Your task to perform on an android device: Add dell alienware to the cart on bestbuy.com Image 0: 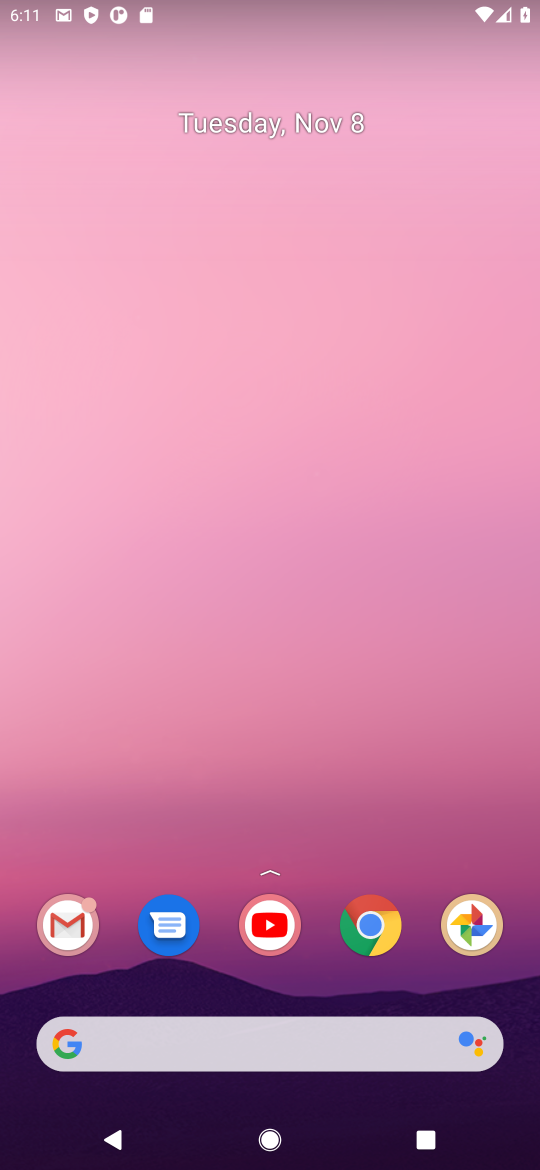
Step 0: click (365, 944)
Your task to perform on an android device: Add dell alienware to the cart on bestbuy.com Image 1: 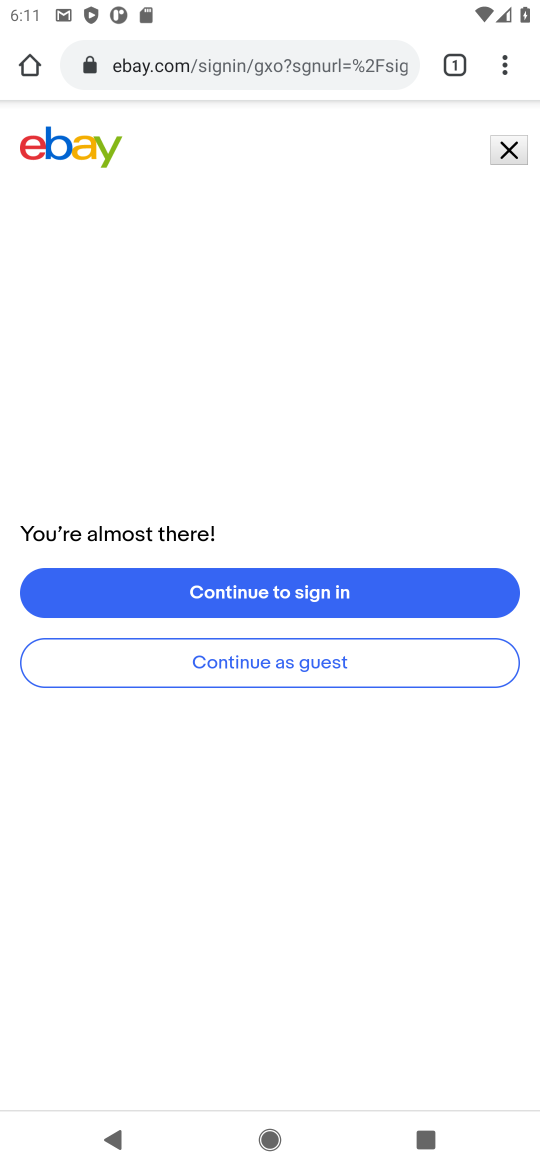
Step 1: click (271, 65)
Your task to perform on an android device: Add dell alienware to the cart on bestbuy.com Image 2: 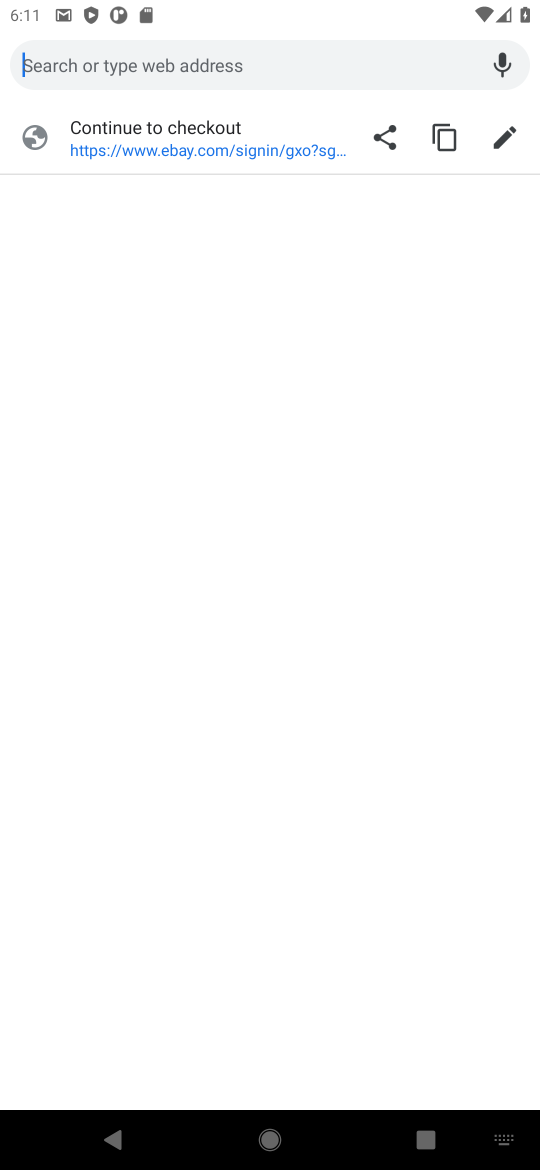
Step 2: type "bestbuy.com"
Your task to perform on an android device: Add dell alienware to the cart on bestbuy.com Image 3: 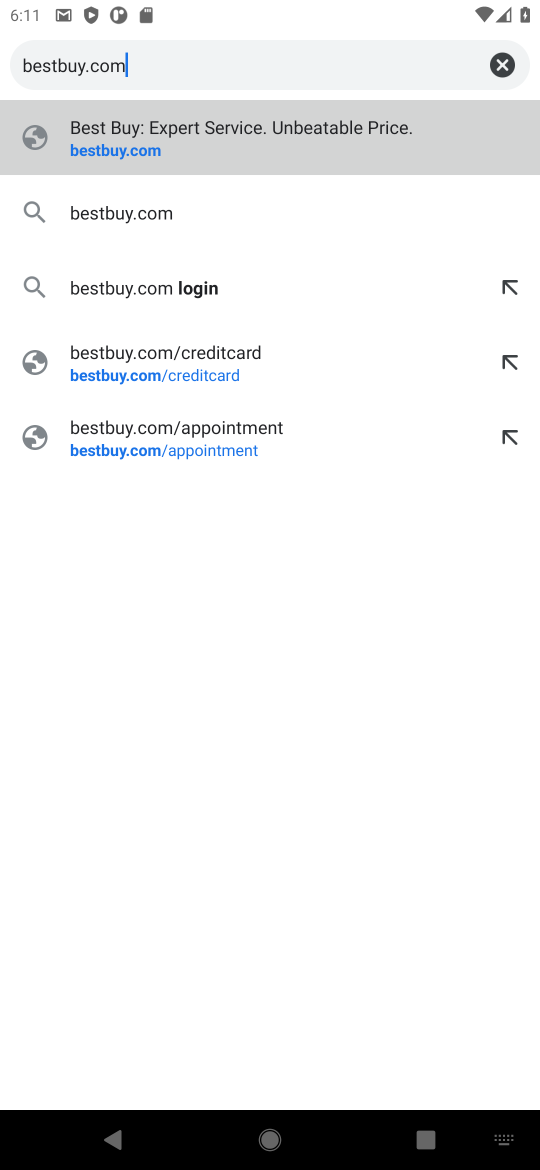
Step 3: click (187, 151)
Your task to perform on an android device: Add dell alienware to the cart on bestbuy.com Image 4: 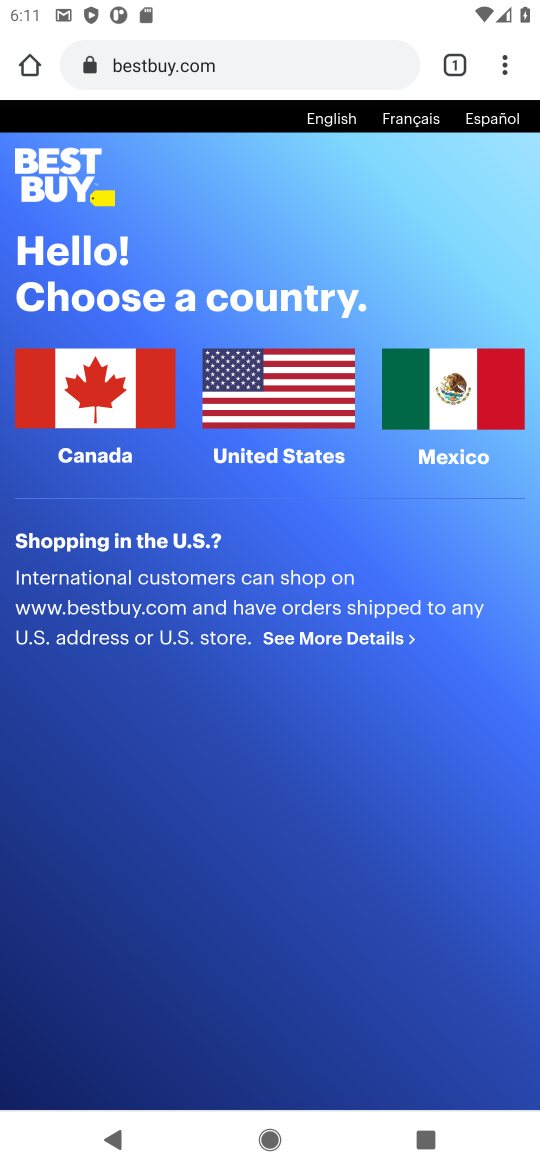
Step 4: click (237, 415)
Your task to perform on an android device: Add dell alienware to the cart on bestbuy.com Image 5: 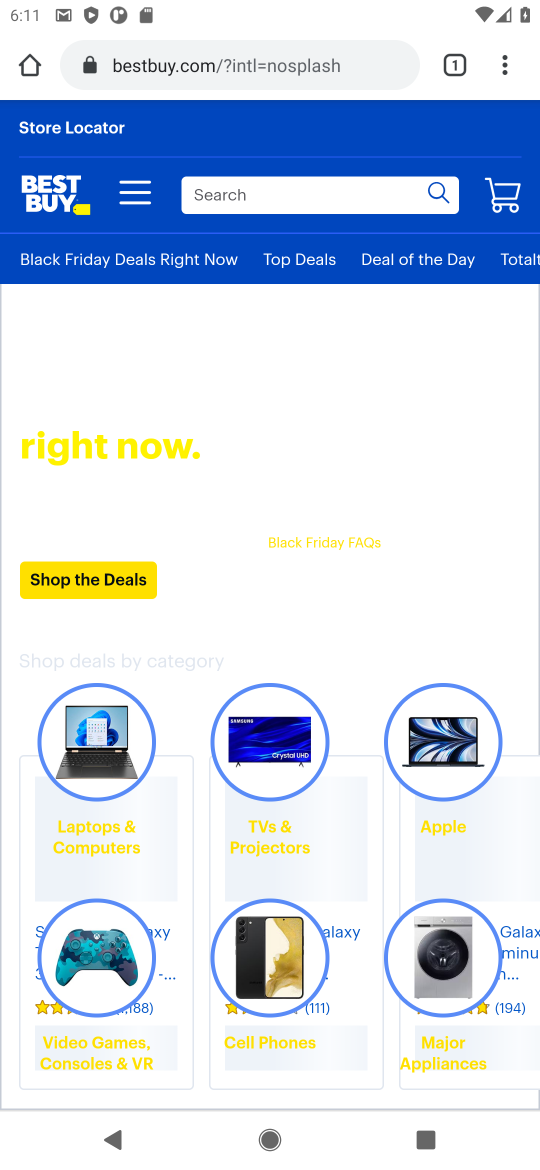
Step 5: click (293, 195)
Your task to perform on an android device: Add dell alienware to the cart on bestbuy.com Image 6: 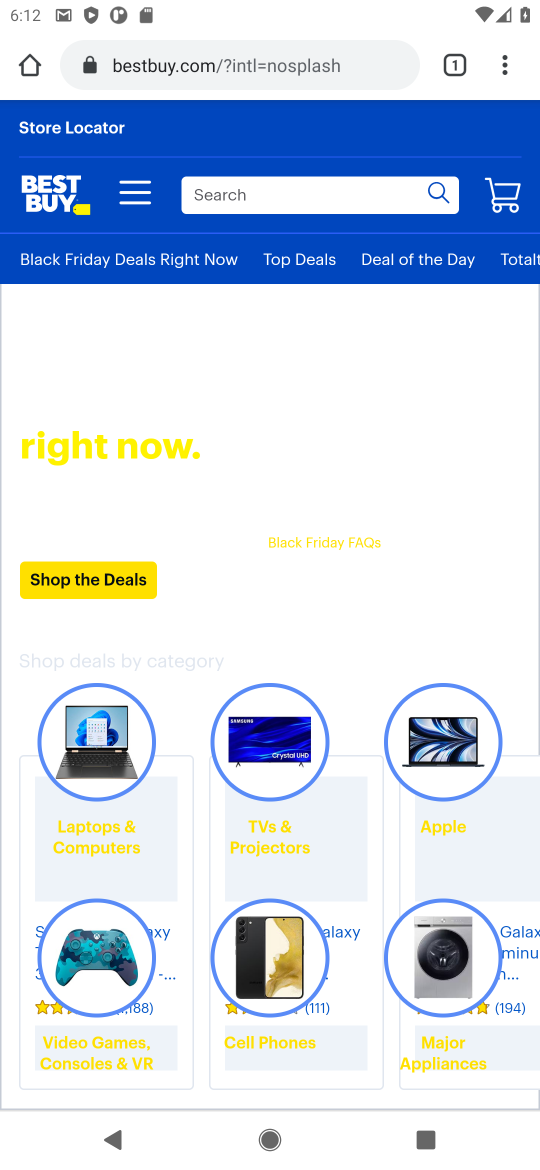
Step 6: click (293, 195)
Your task to perform on an android device: Add dell alienware to the cart on bestbuy.com Image 7: 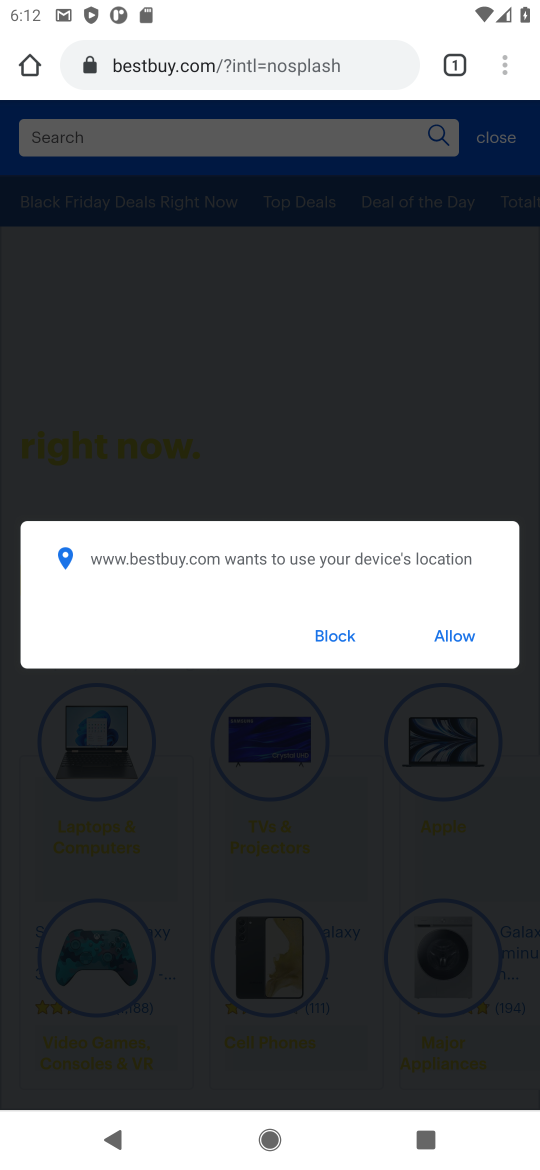
Step 7: click (440, 634)
Your task to perform on an android device: Add dell alienware to the cart on bestbuy.com Image 8: 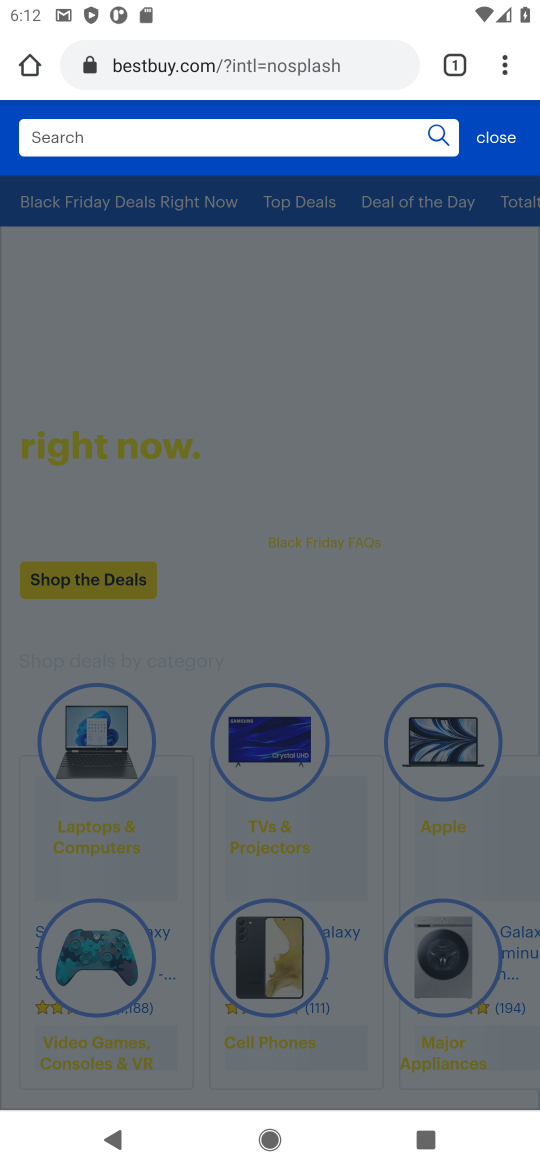
Step 8: click (245, 142)
Your task to perform on an android device: Add dell alienware to the cart on bestbuy.com Image 9: 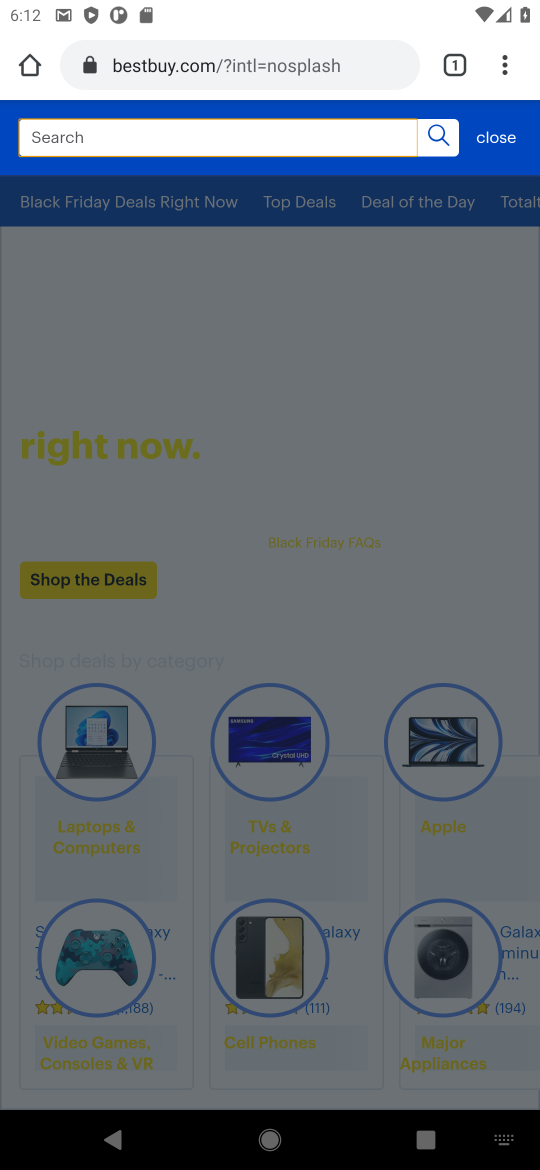
Step 9: type "dell alienware"
Your task to perform on an android device: Add dell alienware to the cart on bestbuy.com Image 10: 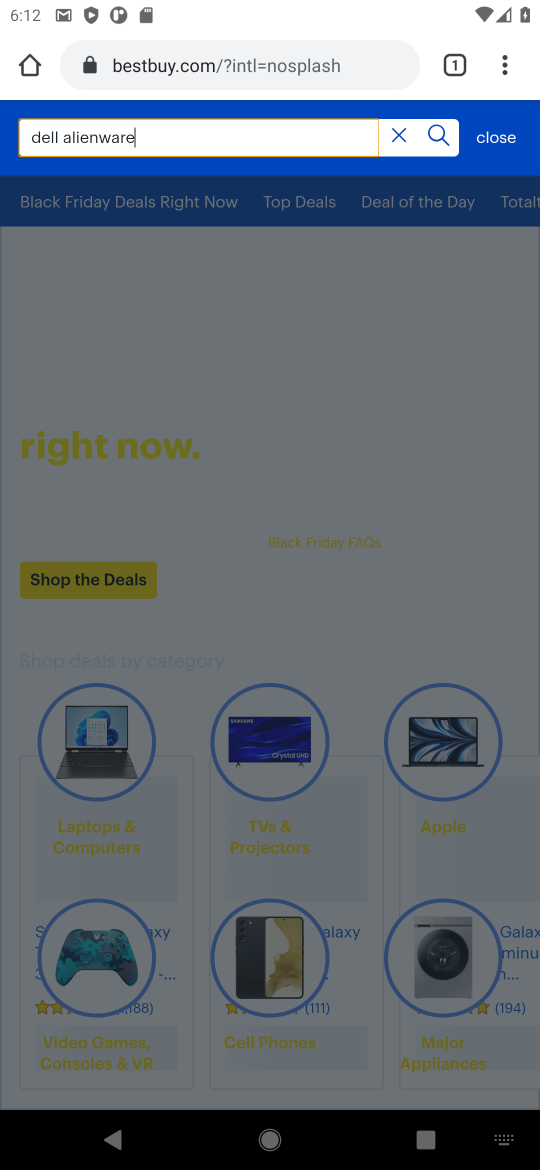
Step 10: press enter
Your task to perform on an android device: Add dell alienware to the cart on bestbuy.com Image 11: 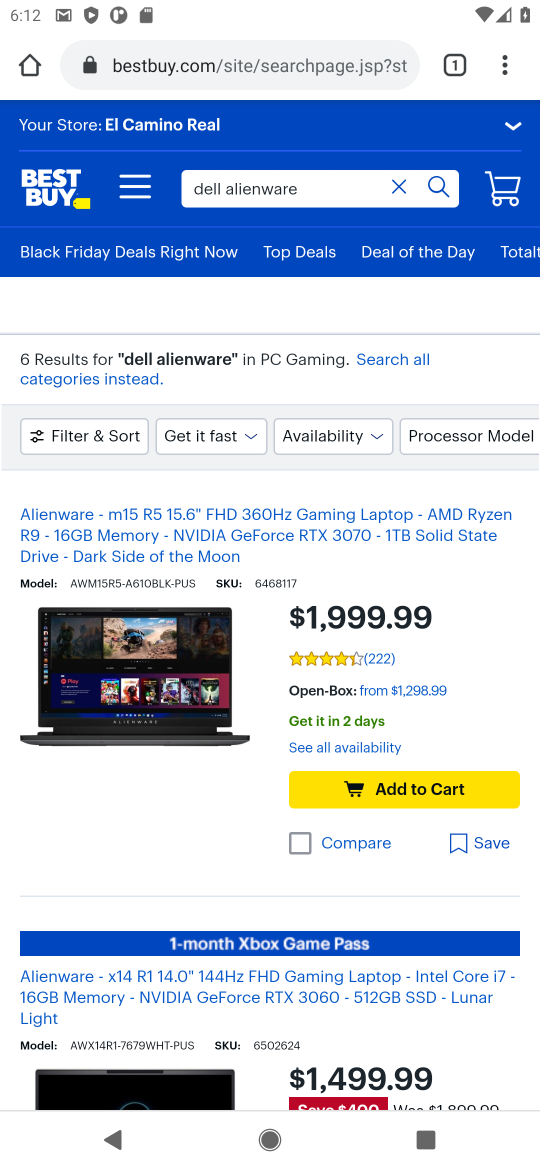
Step 11: click (254, 538)
Your task to perform on an android device: Add dell alienware to the cart on bestbuy.com Image 12: 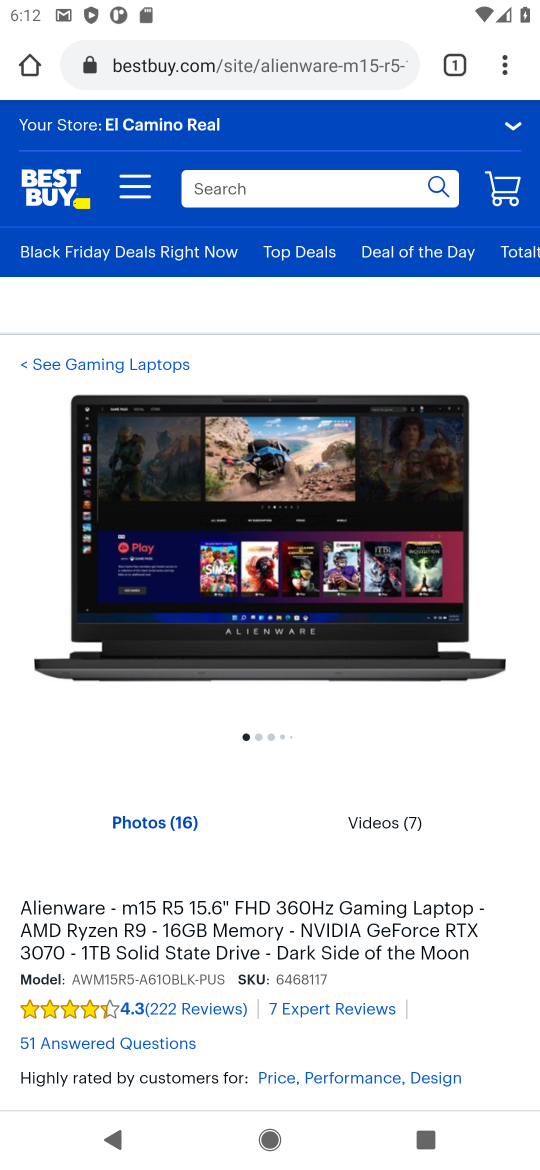
Step 12: drag from (395, 1002) to (378, 545)
Your task to perform on an android device: Add dell alienware to the cart on bestbuy.com Image 13: 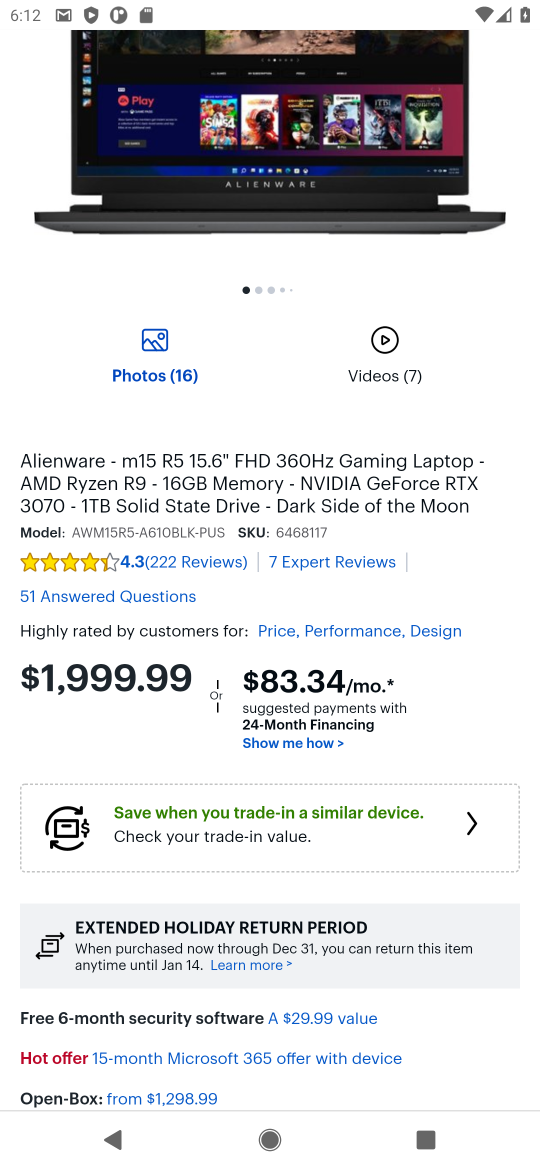
Step 13: press back button
Your task to perform on an android device: Add dell alienware to the cart on bestbuy.com Image 14: 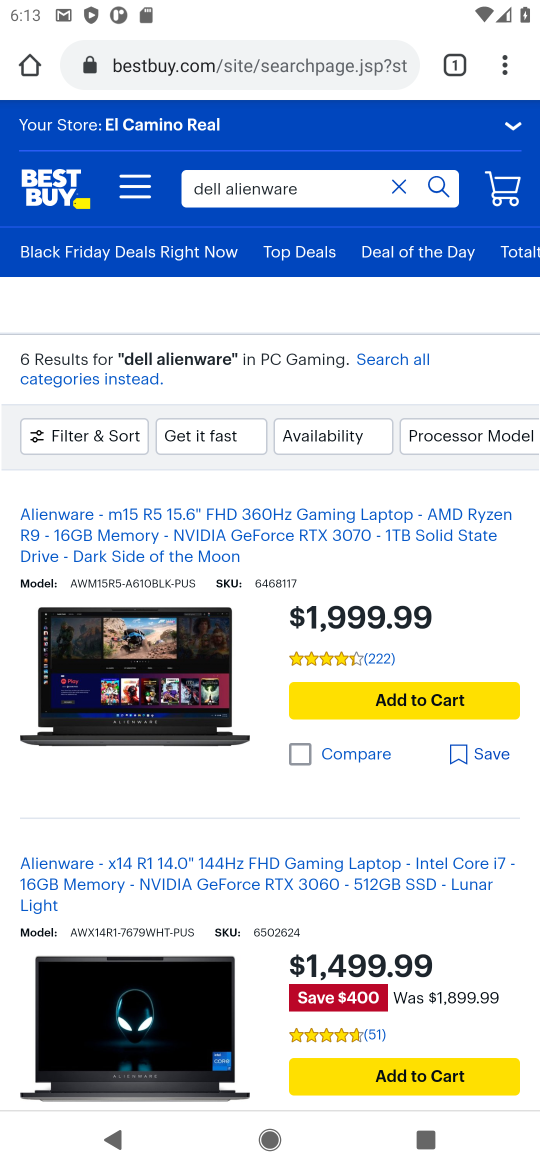
Step 14: drag from (274, 1001) to (232, 495)
Your task to perform on an android device: Add dell alienware to the cart on bestbuy.com Image 15: 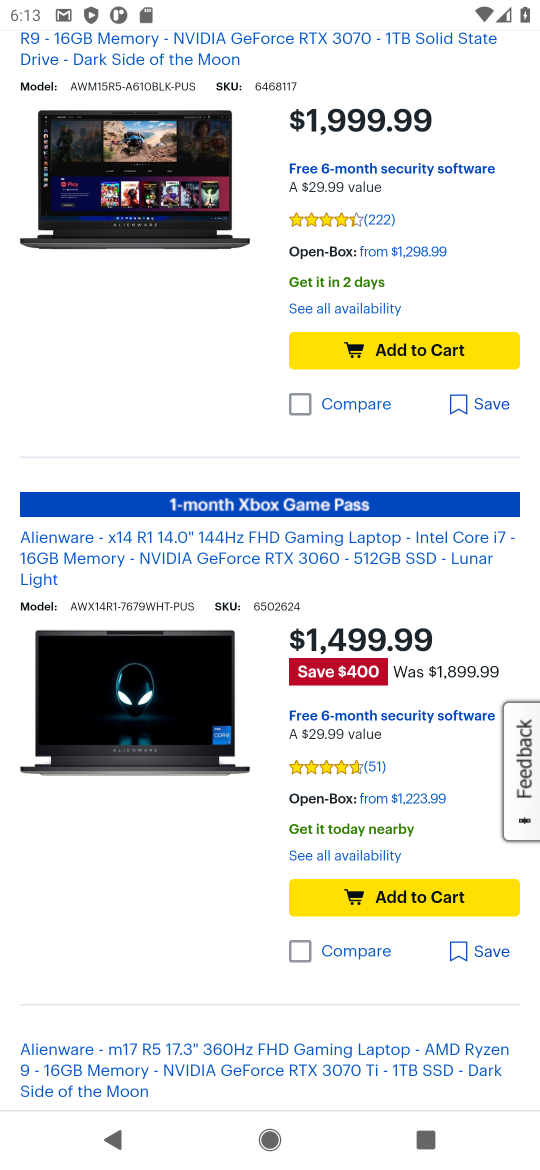
Step 15: drag from (220, 1012) to (243, 1075)
Your task to perform on an android device: Add dell alienware to the cart on bestbuy.com Image 16: 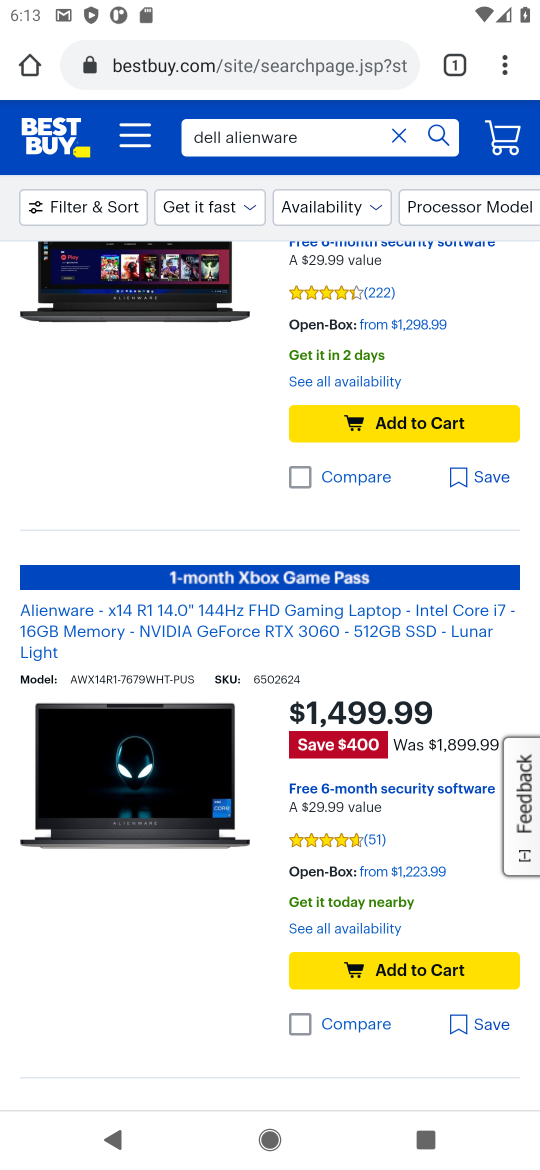
Step 16: drag from (221, 536) to (292, 1087)
Your task to perform on an android device: Add dell alienware to the cart on bestbuy.com Image 17: 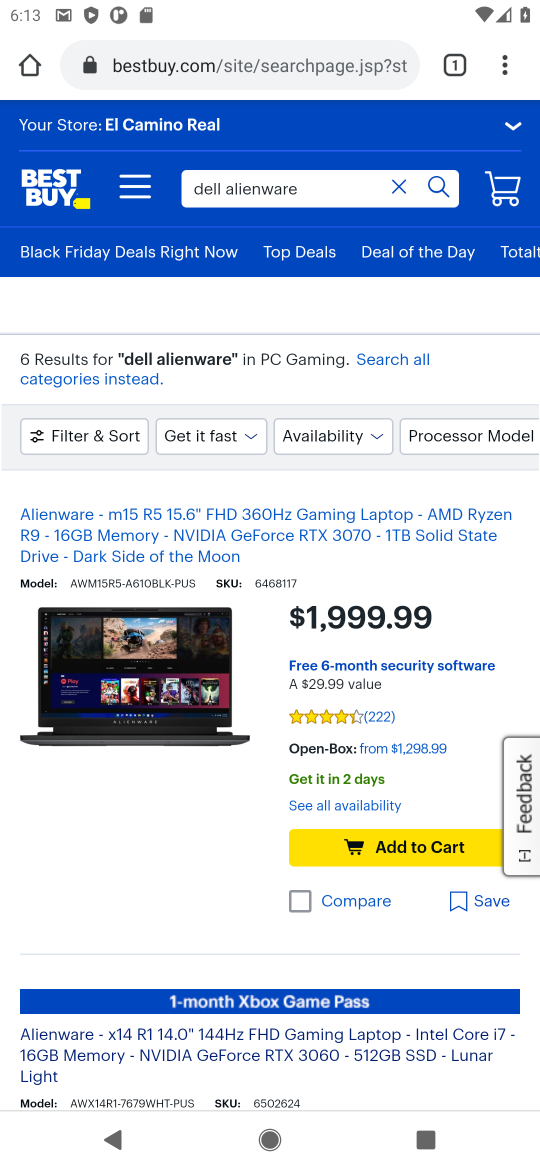
Step 17: click (54, 437)
Your task to perform on an android device: Add dell alienware to the cart on bestbuy.com Image 18: 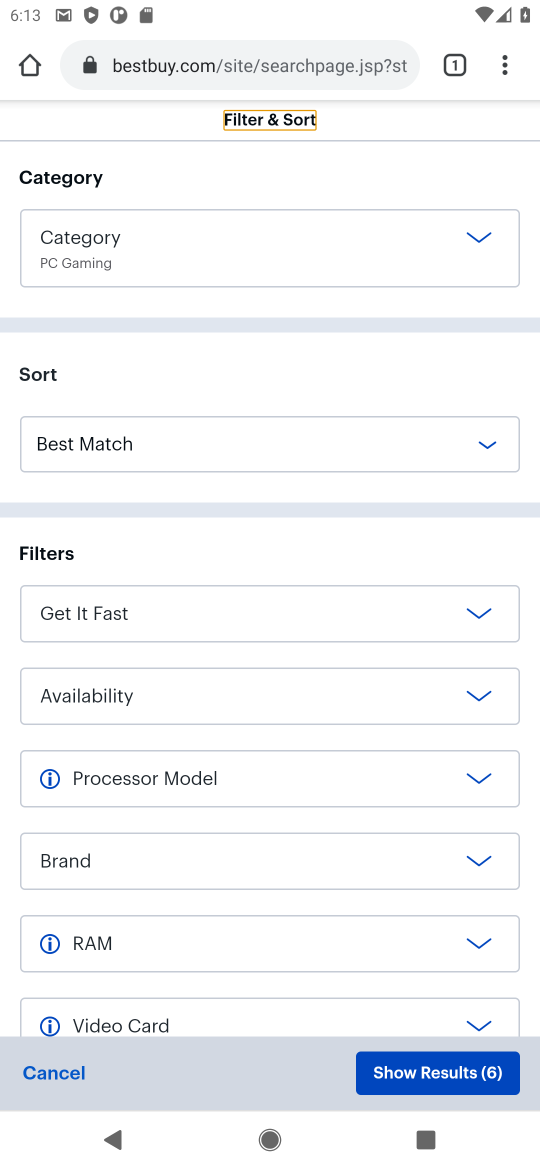
Step 18: click (478, 862)
Your task to perform on an android device: Add dell alienware to the cart on bestbuy.com Image 19: 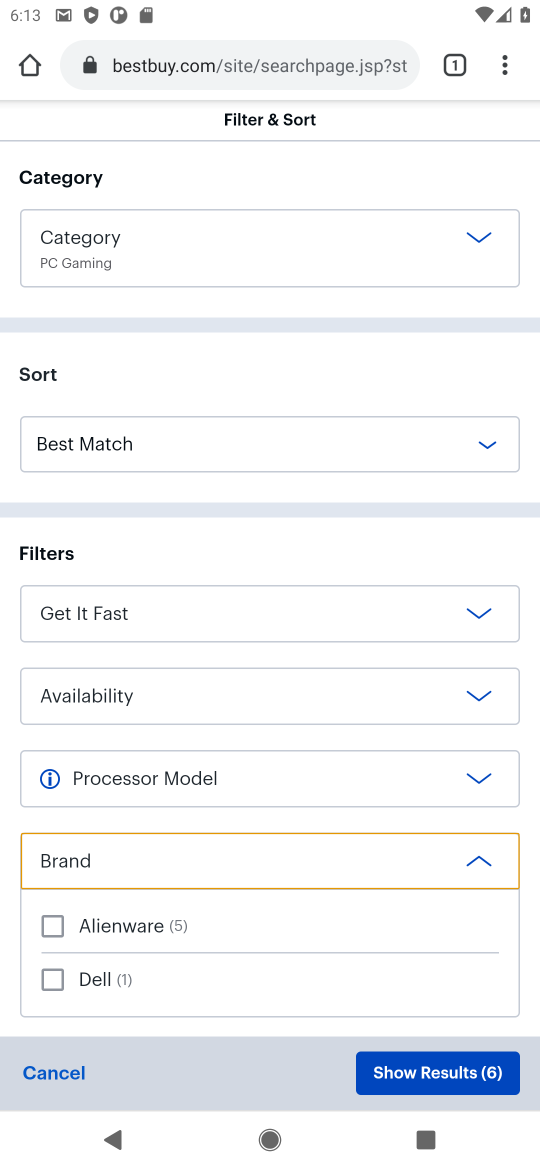
Step 19: click (50, 972)
Your task to perform on an android device: Add dell alienware to the cart on bestbuy.com Image 20: 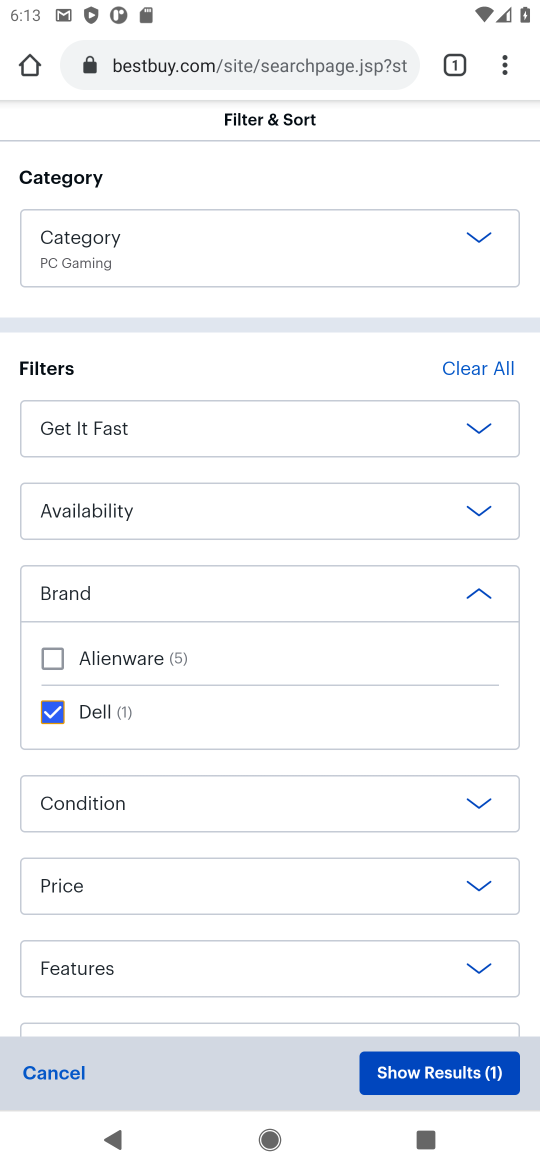
Step 20: click (454, 1071)
Your task to perform on an android device: Add dell alienware to the cart on bestbuy.com Image 21: 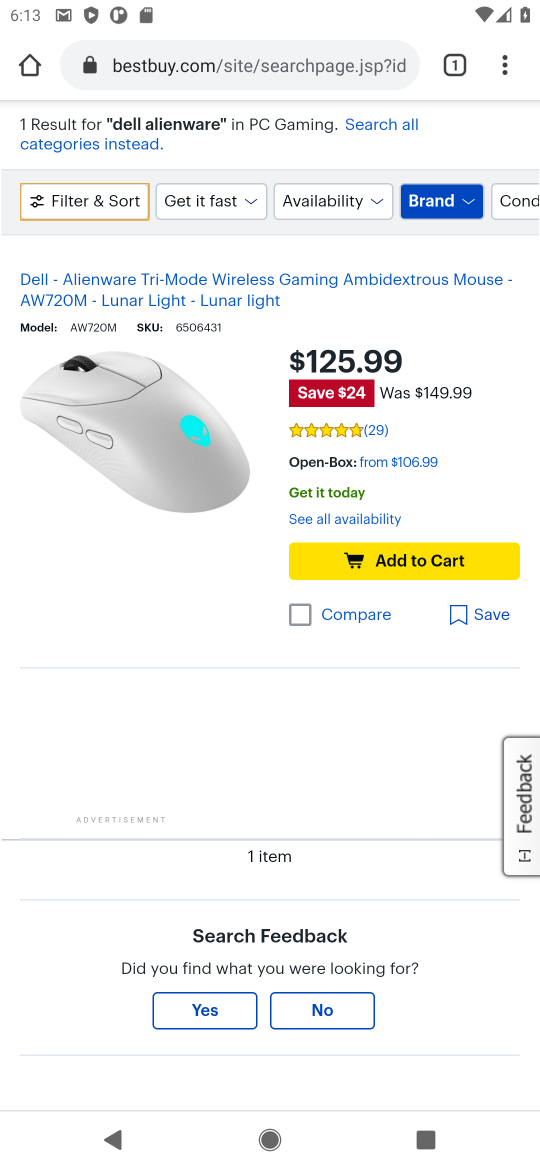
Step 21: click (377, 557)
Your task to perform on an android device: Add dell alienware to the cart on bestbuy.com Image 22: 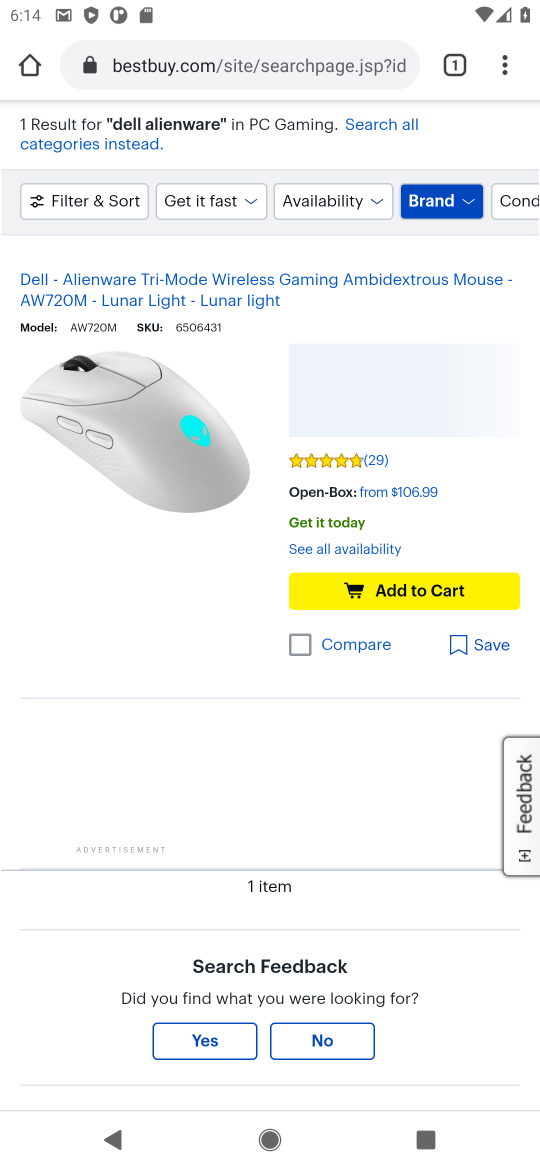
Step 22: task complete